Your task to perform on an android device: delete a single message in the gmail app Image 0: 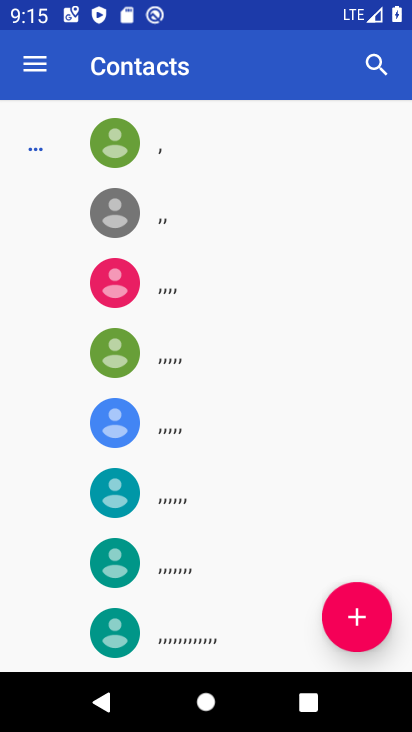
Step 0: press home button
Your task to perform on an android device: delete a single message in the gmail app Image 1: 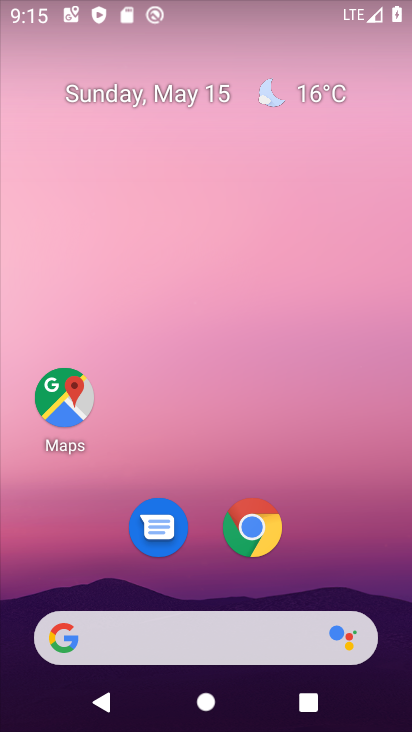
Step 1: drag from (361, 529) to (368, 0)
Your task to perform on an android device: delete a single message in the gmail app Image 2: 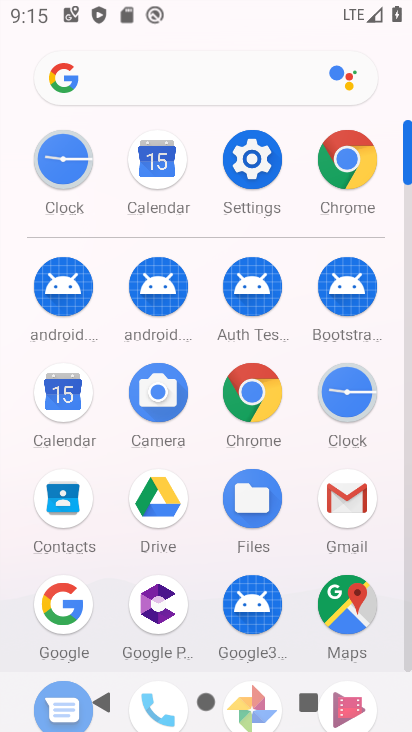
Step 2: click (341, 526)
Your task to perform on an android device: delete a single message in the gmail app Image 3: 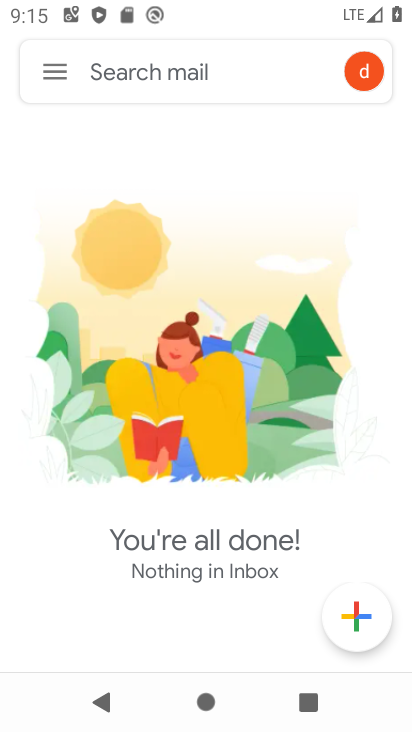
Step 3: click (44, 70)
Your task to perform on an android device: delete a single message in the gmail app Image 4: 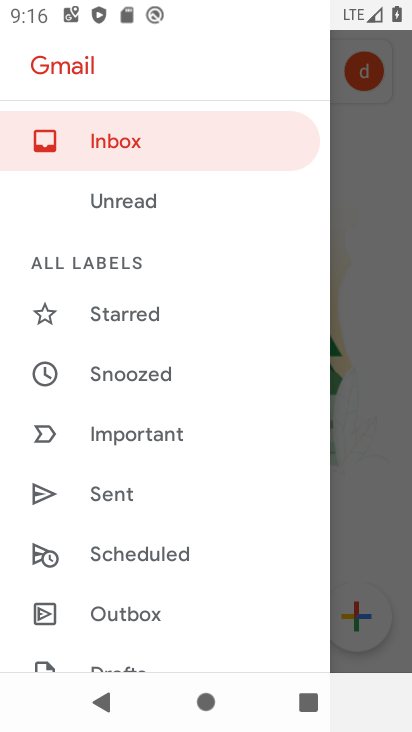
Step 4: drag from (201, 549) to (193, 202)
Your task to perform on an android device: delete a single message in the gmail app Image 5: 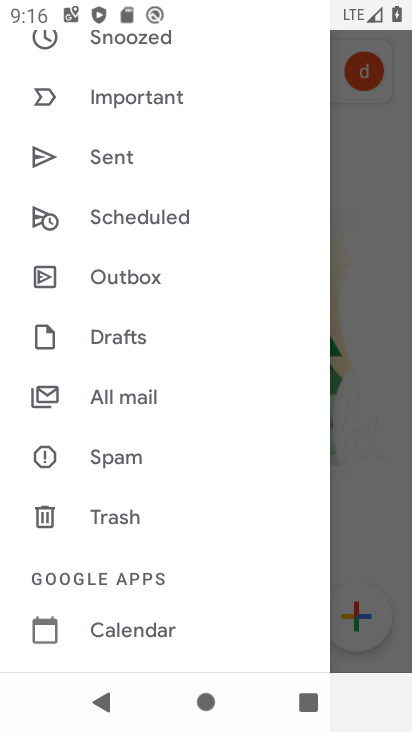
Step 5: click (130, 398)
Your task to perform on an android device: delete a single message in the gmail app Image 6: 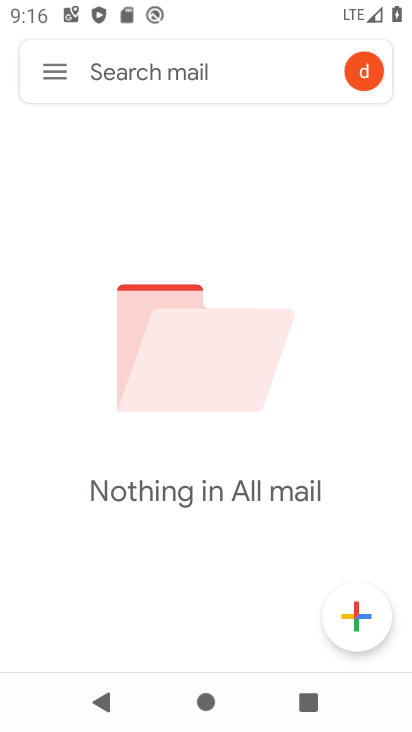
Step 6: task complete